Your task to perform on an android device: turn off location Image 0: 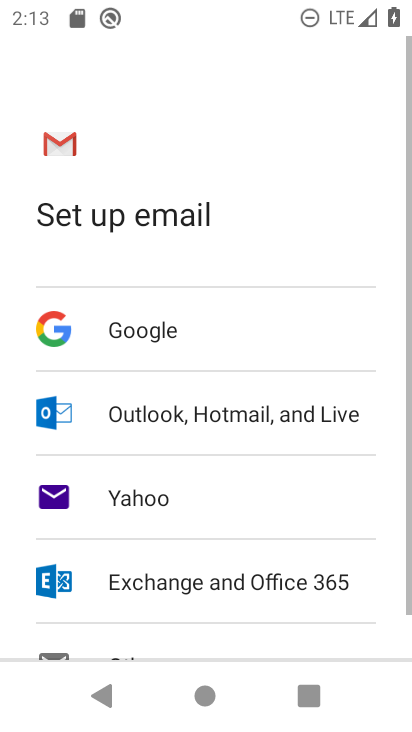
Step 0: press home button
Your task to perform on an android device: turn off location Image 1: 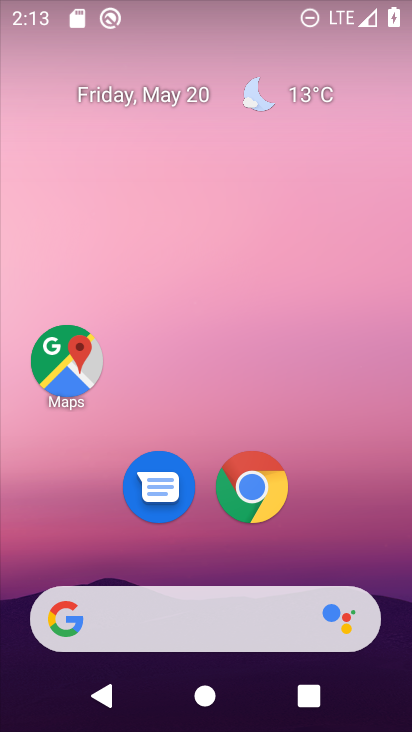
Step 1: drag from (218, 479) to (270, 38)
Your task to perform on an android device: turn off location Image 2: 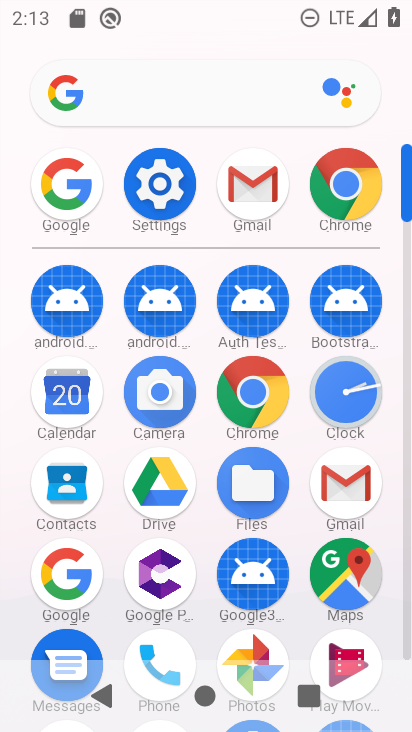
Step 2: click (158, 177)
Your task to perform on an android device: turn off location Image 3: 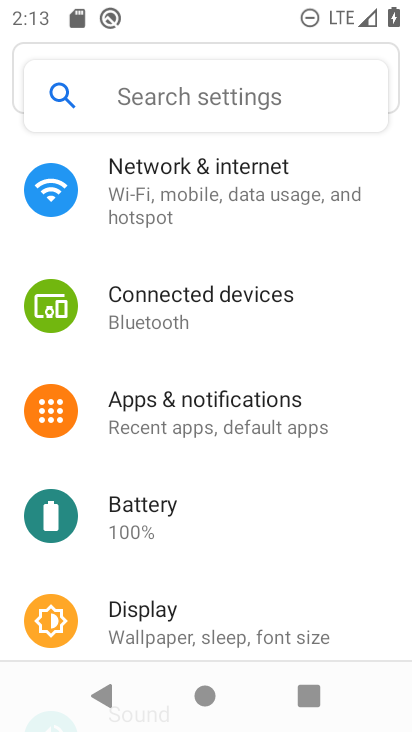
Step 3: drag from (205, 601) to (249, 127)
Your task to perform on an android device: turn off location Image 4: 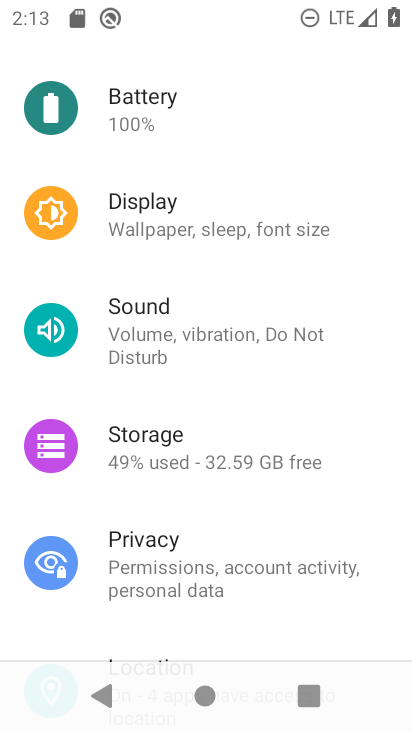
Step 4: drag from (198, 563) to (234, 223)
Your task to perform on an android device: turn off location Image 5: 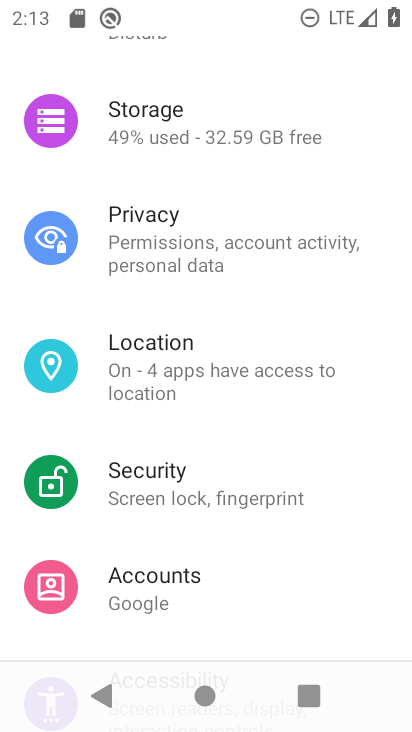
Step 5: click (202, 348)
Your task to perform on an android device: turn off location Image 6: 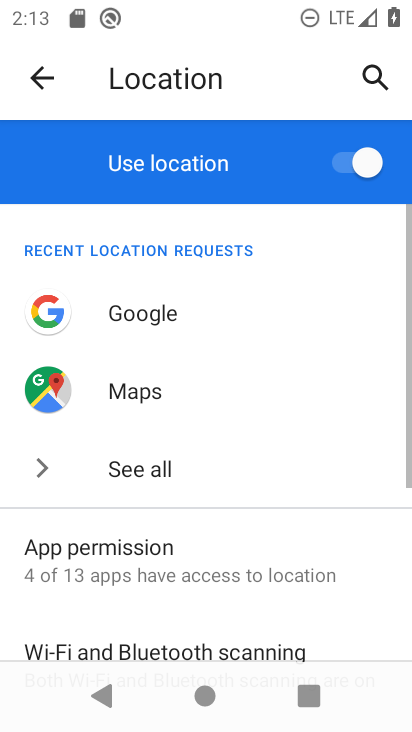
Step 6: click (337, 159)
Your task to perform on an android device: turn off location Image 7: 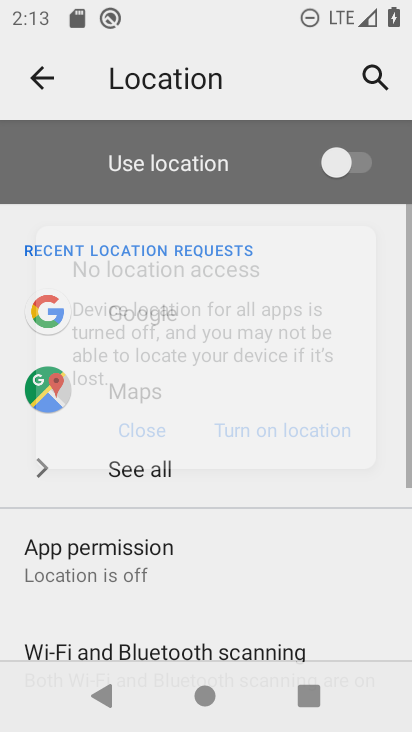
Step 7: task complete